Your task to perform on an android device: Go to internet settings Image 0: 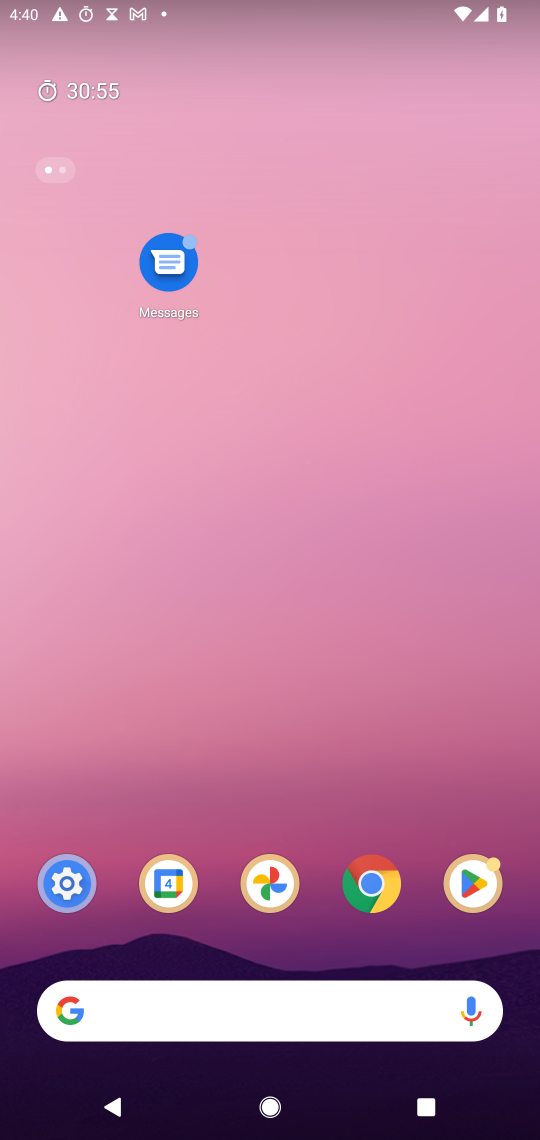
Step 0: drag from (317, 962) to (312, 62)
Your task to perform on an android device: Go to internet settings Image 1: 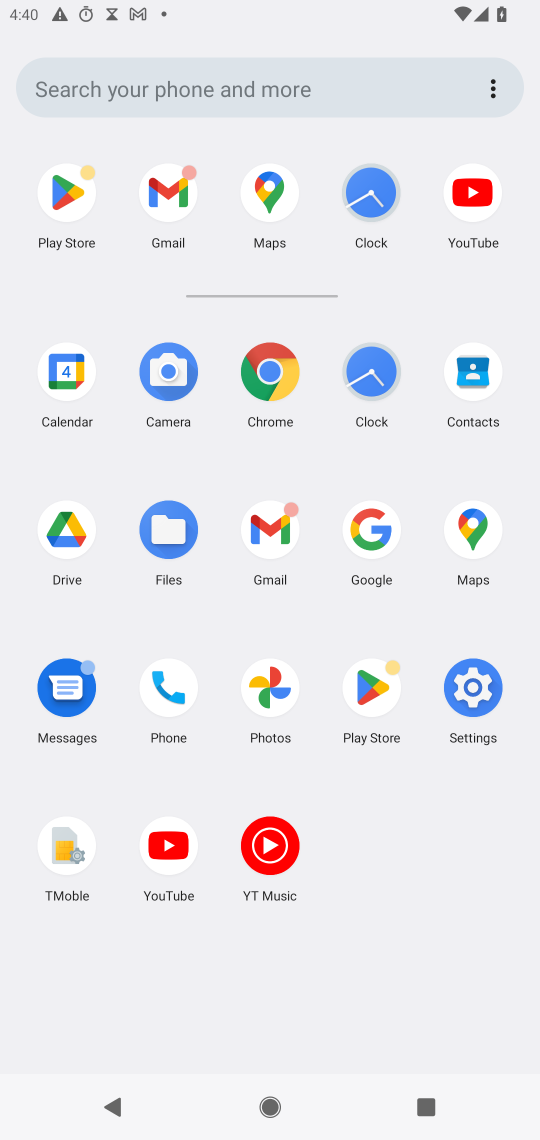
Step 1: click (480, 681)
Your task to perform on an android device: Go to internet settings Image 2: 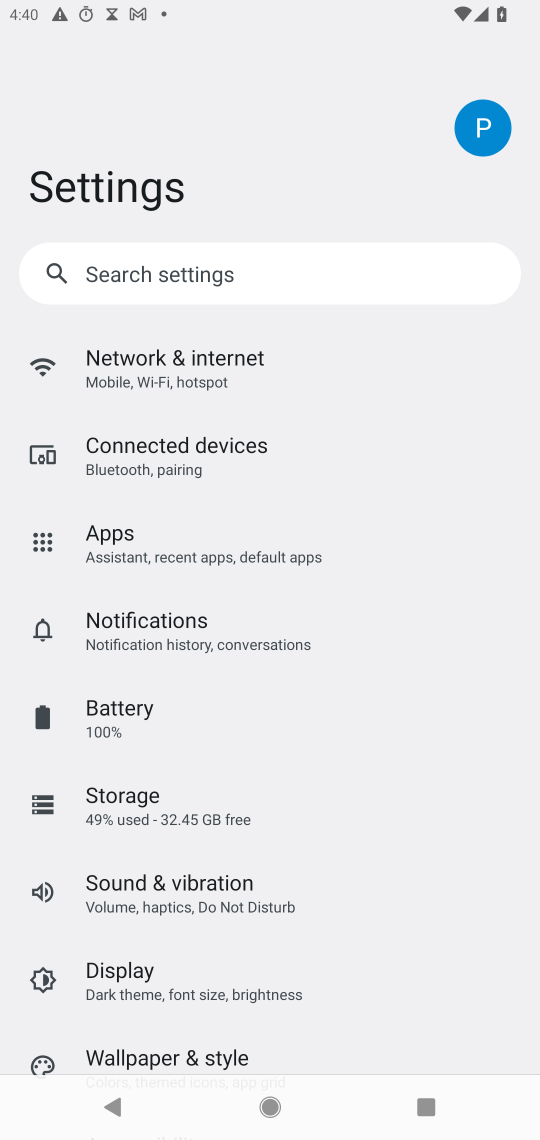
Step 2: click (163, 353)
Your task to perform on an android device: Go to internet settings Image 3: 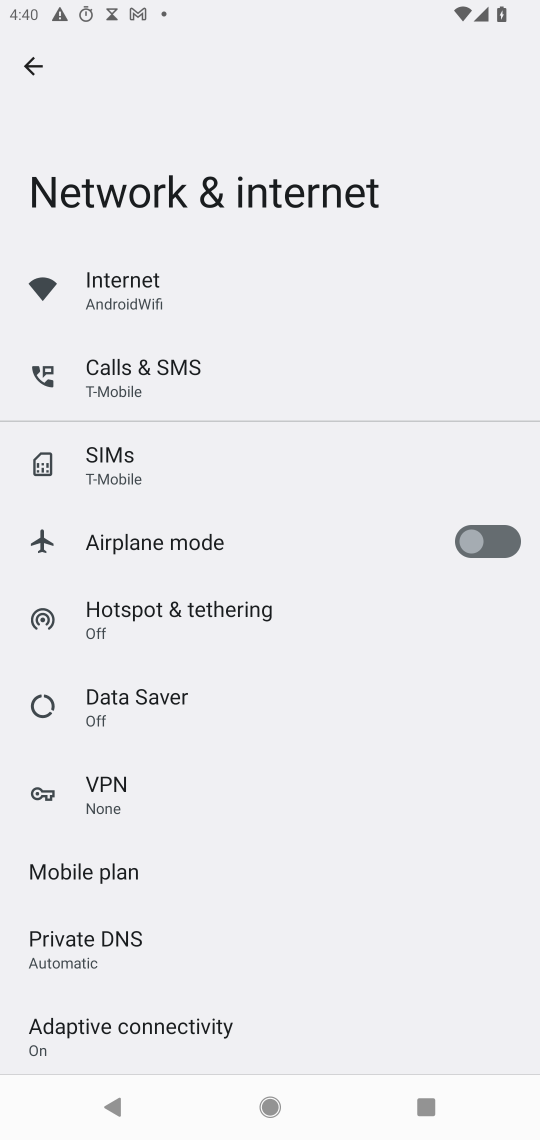
Step 3: click (112, 282)
Your task to perform on an android device: Go to internet settings Image 4: 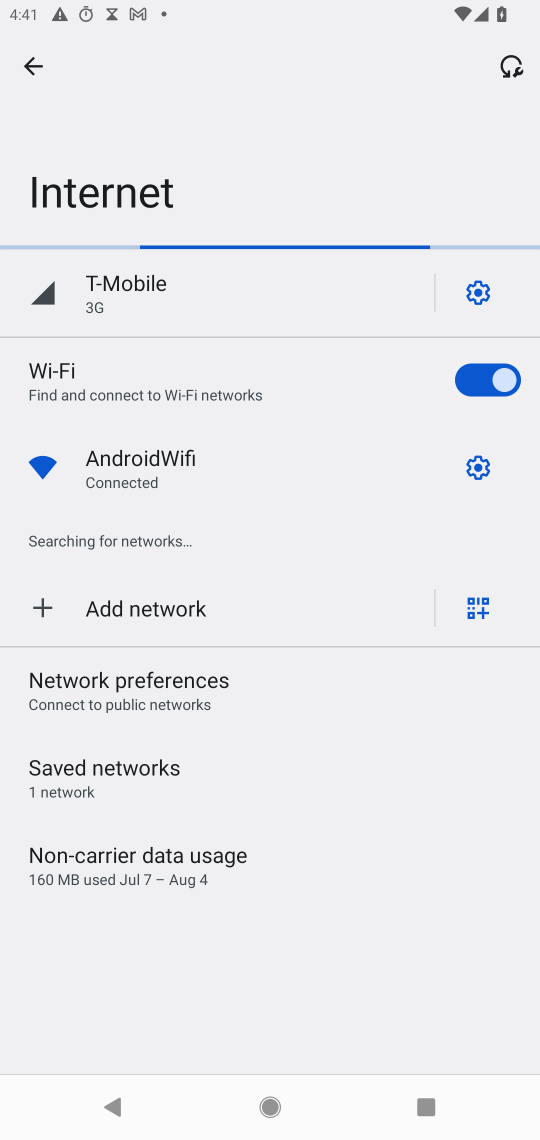
Step 4: task complete